Your task to perform on an android device: Open Google Maps and go to "Timeline" Image 0: 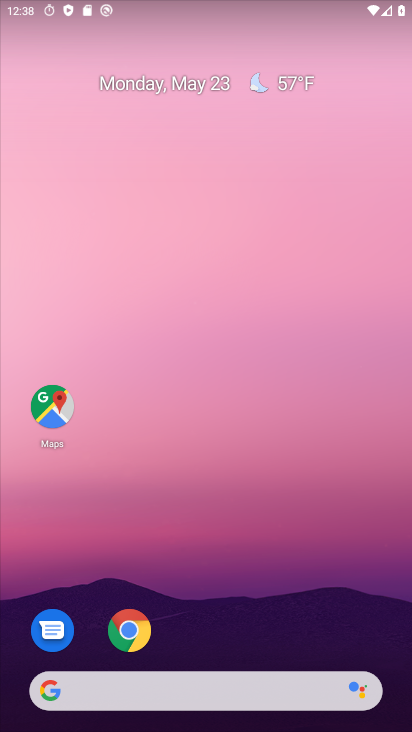
Step 0: drag from (266, 582) to (236, 12)
Your task to perform on an android device: Open Google Maps and go to "Timeline" Image 1: 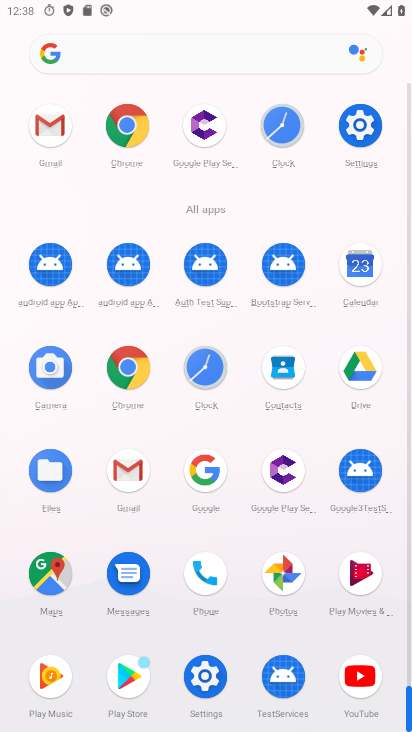
Step 1: drag from (7, 534) to (21, 249)
Your task to perform on an android device: Open Google Maps and go to "Timeline" Image 2: 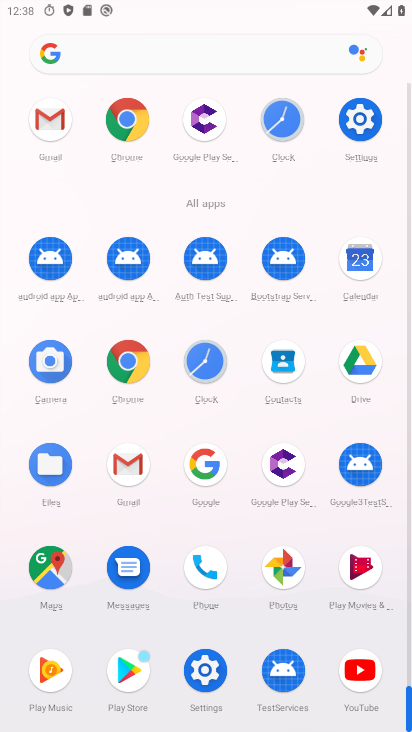
Step 2: click (47, 568)
Your task to perform on an android device: Open Google Maps and go to "Timeline" Image 3: 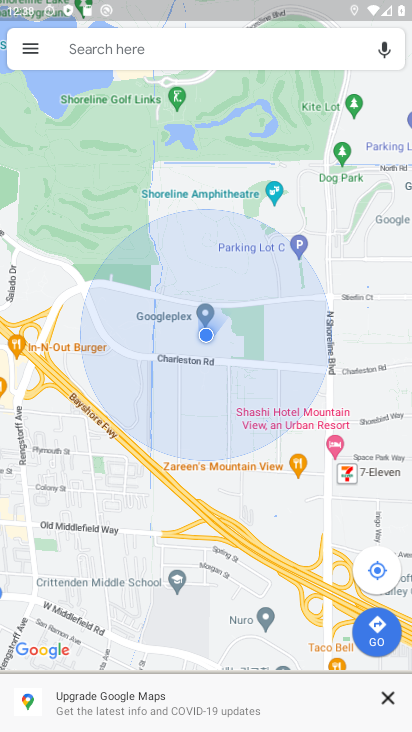
Step 3: click (27, 47)
Your task to perform on an android device: Open Google Maps and go to "Timeline" Image 4: 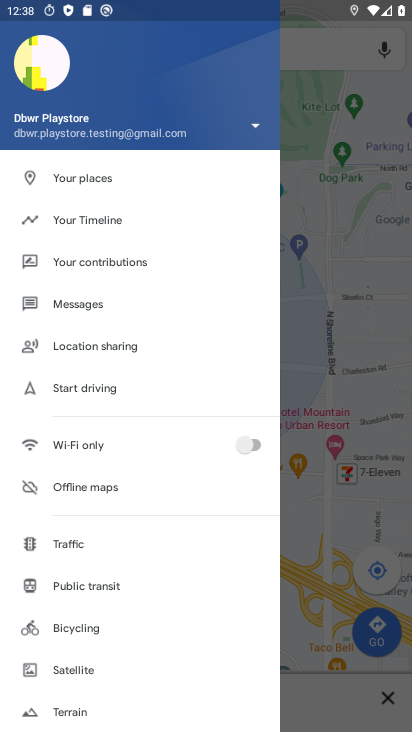
Step 4: click (96, 218)
Your task to perform on an android device: Open Google Maps and go to "Timeline" Image 5: 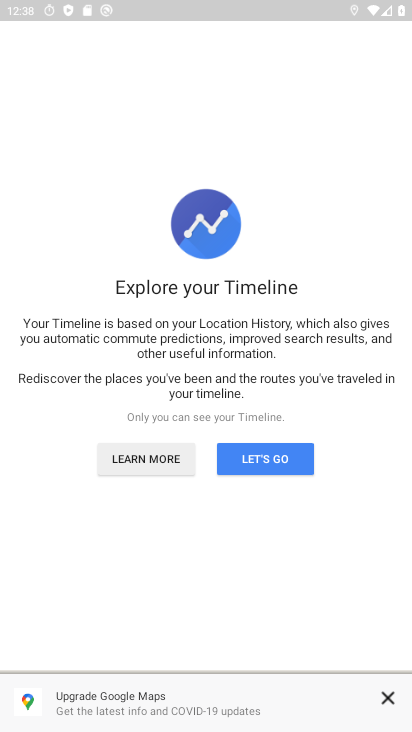
Step 5: click (252, 456)
Your task to perform on an android device: Open Google Maps and go to "Timeline" Image 6: 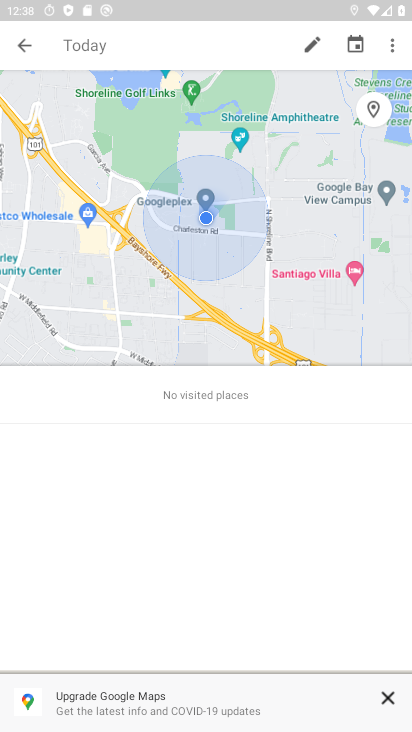
Step 6: task complete